Your task to perform on an android device: Open the calendar app, open the side menu, and click the "Day" option Image 0: 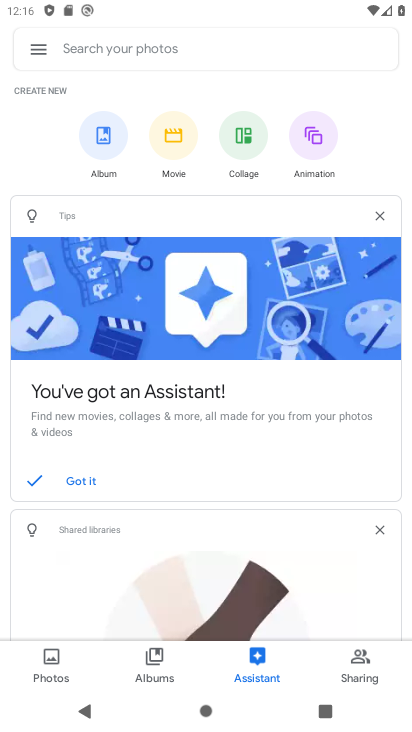
Step 0: press home button
Your task to perform on an android device: Open the calendar app, open the side menu, and click the "Day" option Image 1: 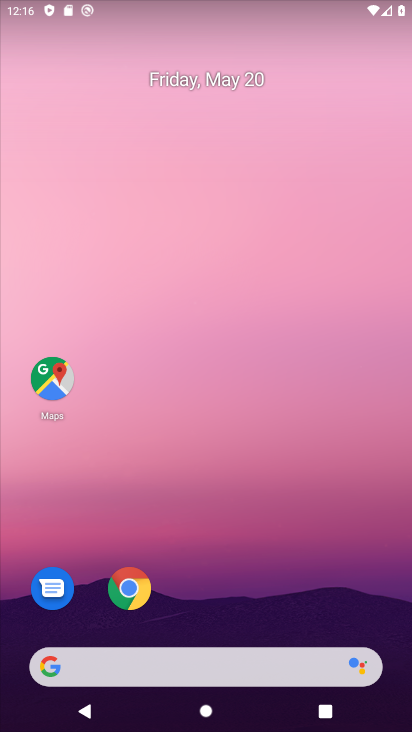
Step 1: drag from (377, 626) to (284, 15)
Your task to perform on an android device: Open the calendar app, open the side menu, and click the "Day" option Image 2: 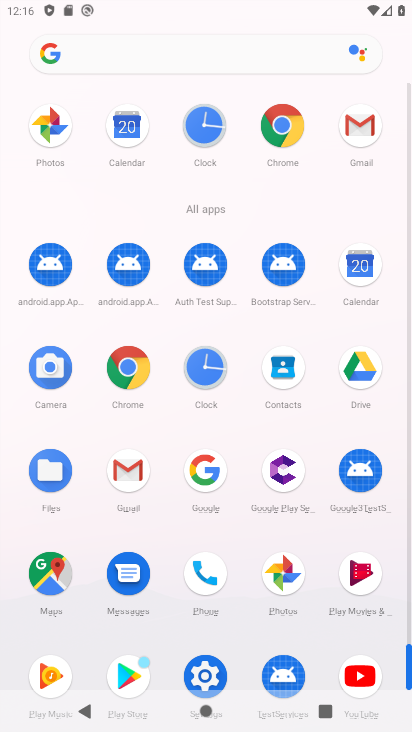
Step 2: click (360, 266)
Your task to perform on an android device: Open the calendar app, open the side menu, and click the "Day" option Image 3: 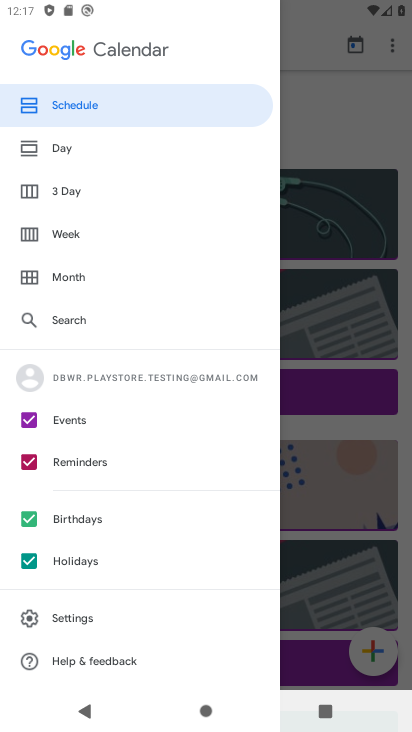
Step 3: click (68, 146)
Your task to perform on an android device: Open the calendar app, open the side menu, and click the "Day" option Image 4: 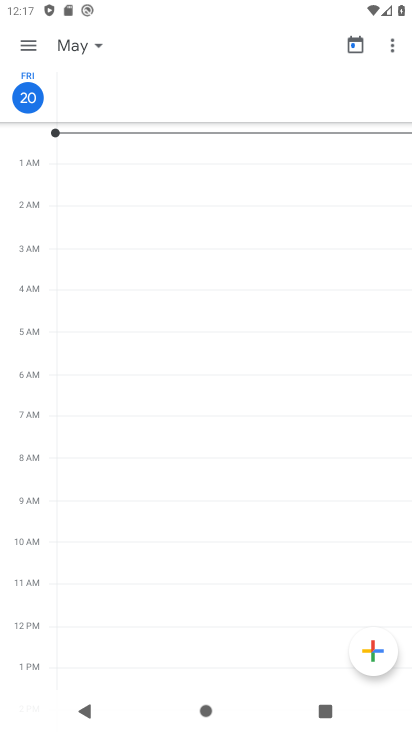
Step 4: task complete